Your task to perform on an android device: toggle notifications settings in the gmail app Image 0: 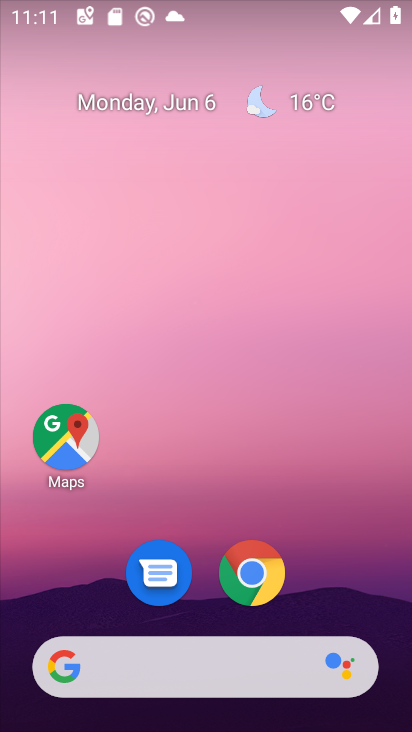
Step 0: drag from (200, 608) to (330, 166)
Your task to perform on an android device: toggle notifications settings in the gmail app Image 1: 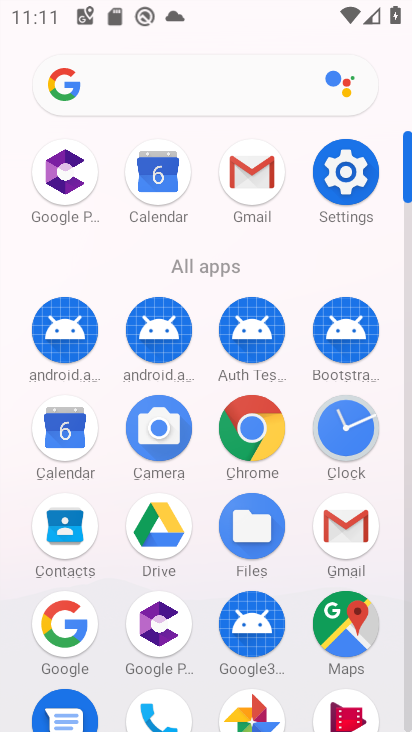
Step 1: click (345, 200)
Your task to perform on an android device: toggle notifications settings in the gmail app Image 2: 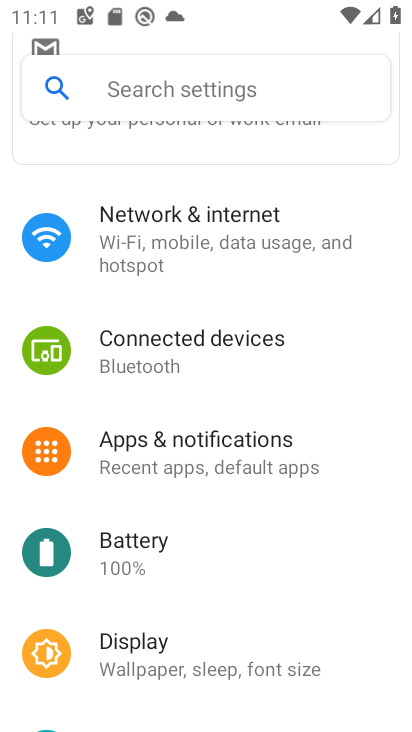
Step 2: press home button
Your task to perform on an android device: toggle notifications settings in the gmail app Image 3: 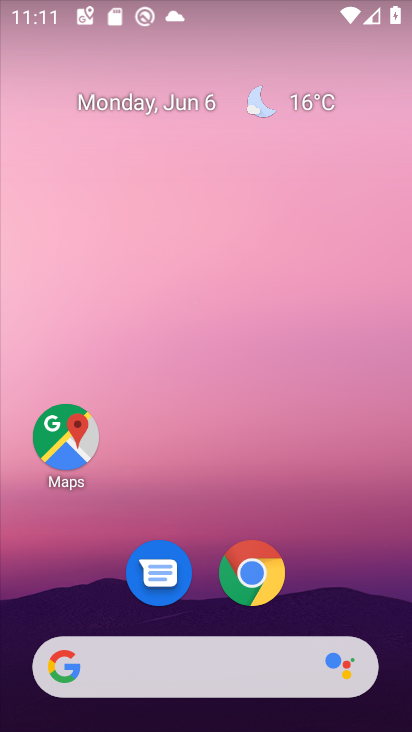
Step 3: drag from (250, 522) to (385, 36)
Your task to perform on an android device: toggle notifications settings in the gmail app Image 4: 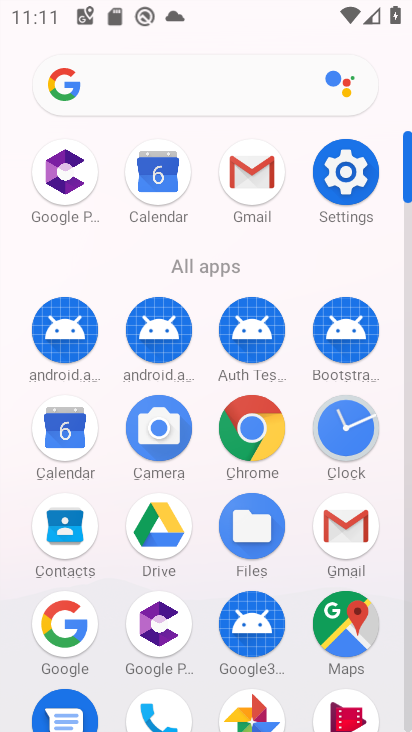
Step 4: click (338, 537)
Your task to perform on an android device: toggle notifications settings in the gmail app Image 5: 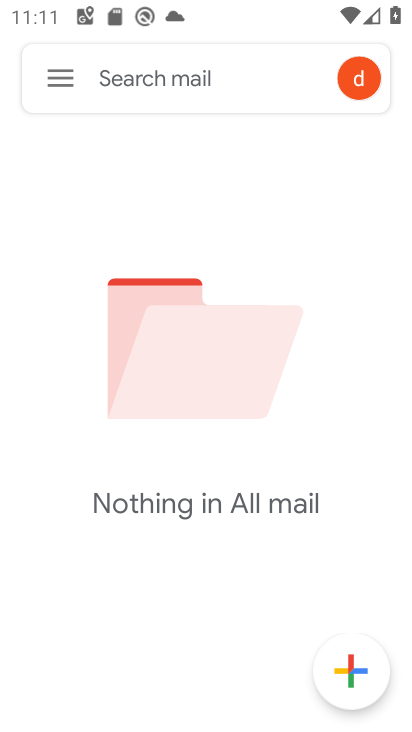
Step 5: click (60, 77)
Your task to perform on an android device: toggle notifications settings in the gmail app Image 6: 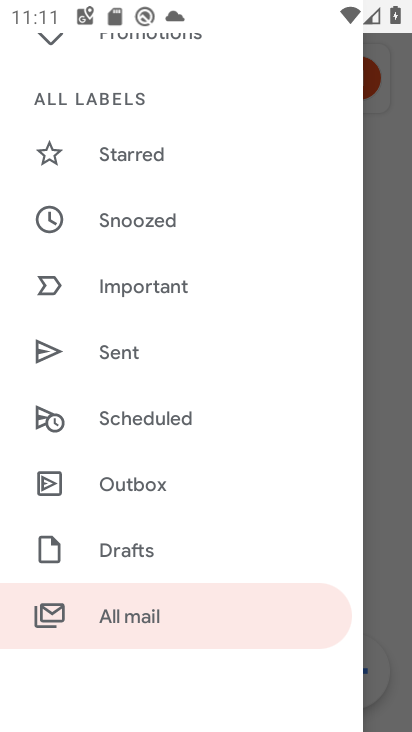
Step 6: drag from (154, 537) to (251, 169)
Your task to perform on an android device: toggle notifications settings in the gmail app Image 7: 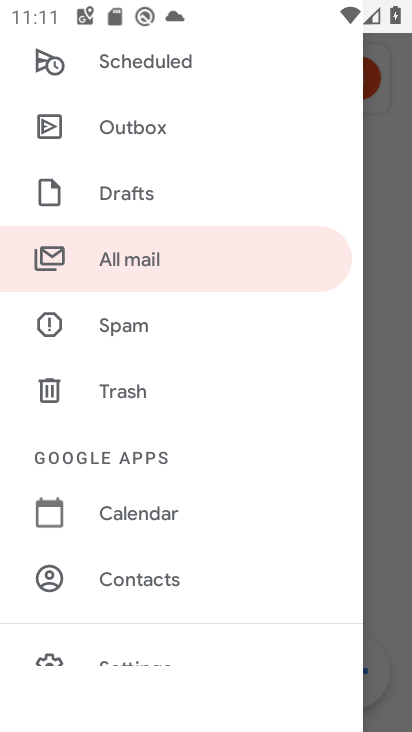
Step 7: drag from (219, 567) to (262, 247)
Your task to perform on an android device: toggle notifications settings in the gmail app Image 8: 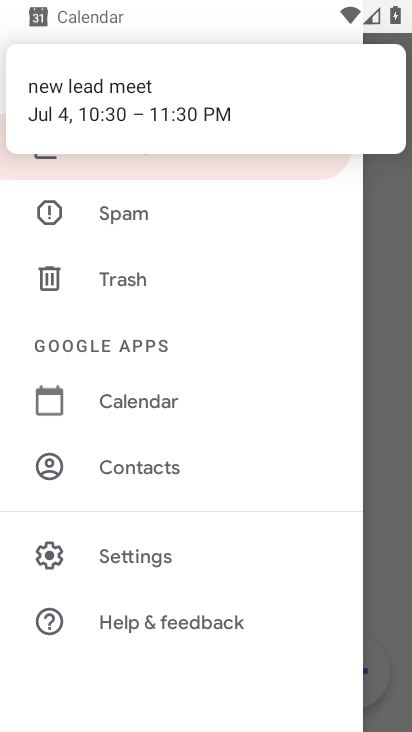
Step 8: click (154, 561)
Your task to perform on an android device: toggle notifications settings in the gmail app Image 9: 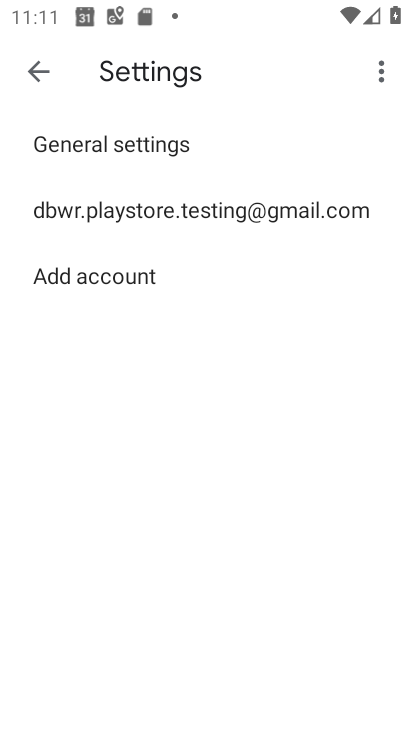
Step 9: click (171, 154)
Your task to perform on an android device: toggle notifications settings in the gmail app Image 10: 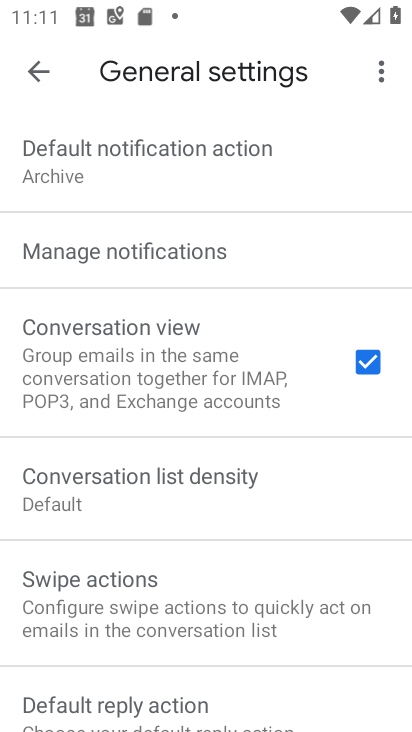
Step 10: click (160, 246)
Your task to perform on an android device: toggle notifications settings in the gmail app Image 11: 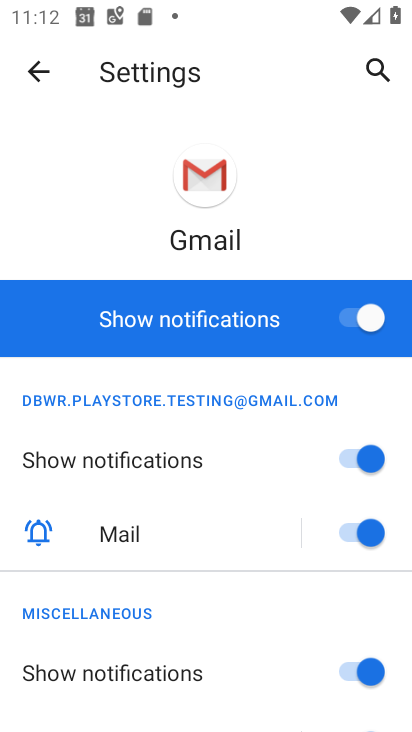
Step 11: click (326, 309)
Your task to perform on an android device: toggle notifications settings in the gmail app Image 12: 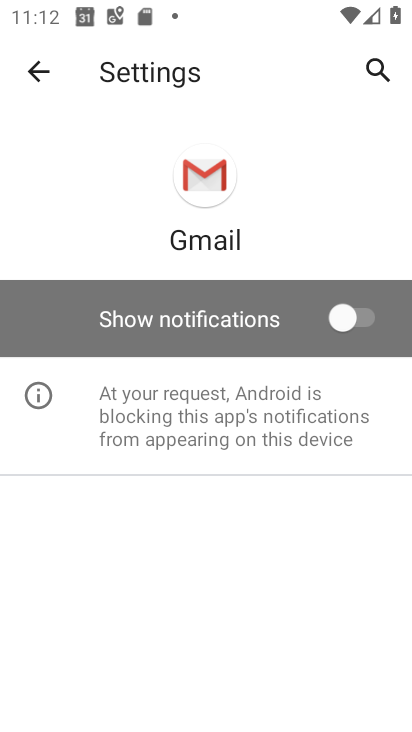
Step 12: task complete